Your task to perform on an android device: Check the weather Image 0: 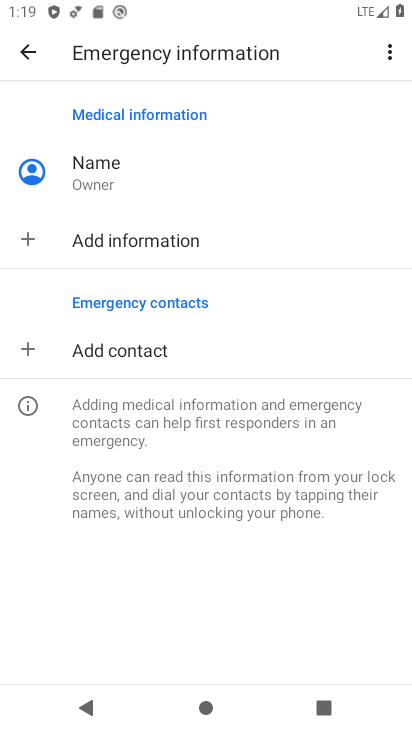
Step 0: press home button
Your task to perform on an android device: Check the weather Image 1: 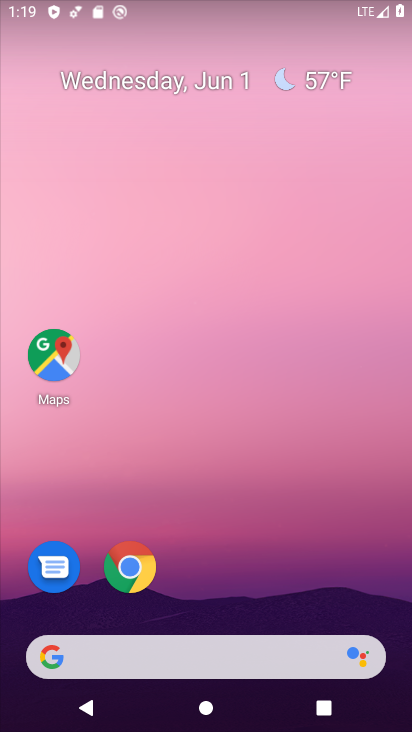
Step 1: click (328, 73)
Your task to perform on an android device: Check the weather Image 2: 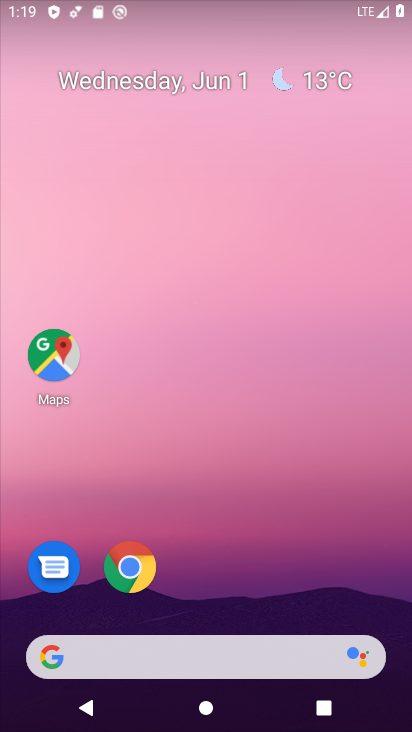
Step 2: click (310, 80)
Your task to perform on an android device: Check the weather Image 3: 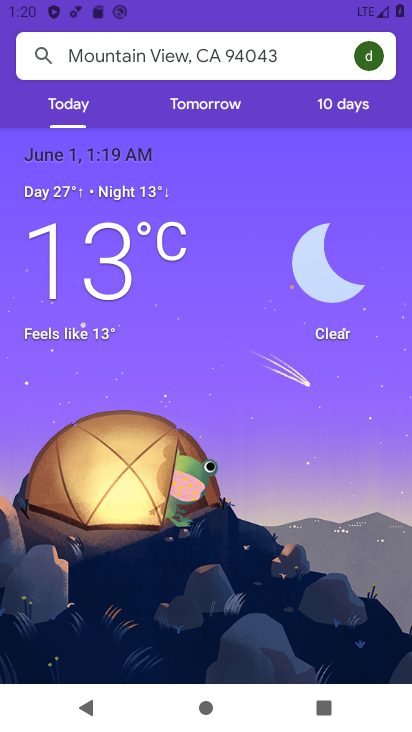
Step 3: task complete